Your task to perform on an android device: create a new album in the google photos Image 0: 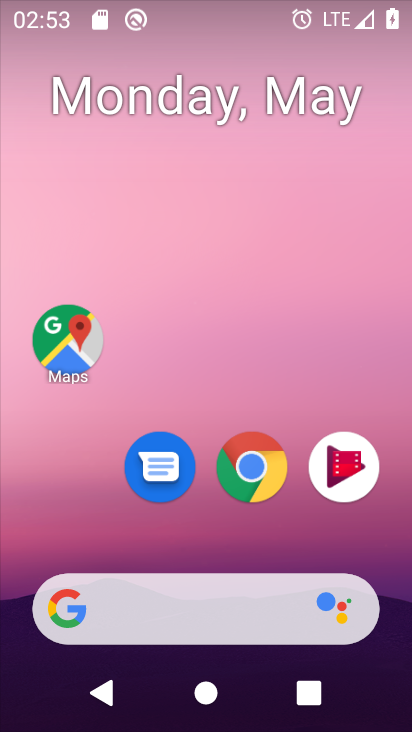
Step 0: drag from (203, 529) to (254, 179)
Your task to perform on an android device: create a new album in the google photos Image 1: 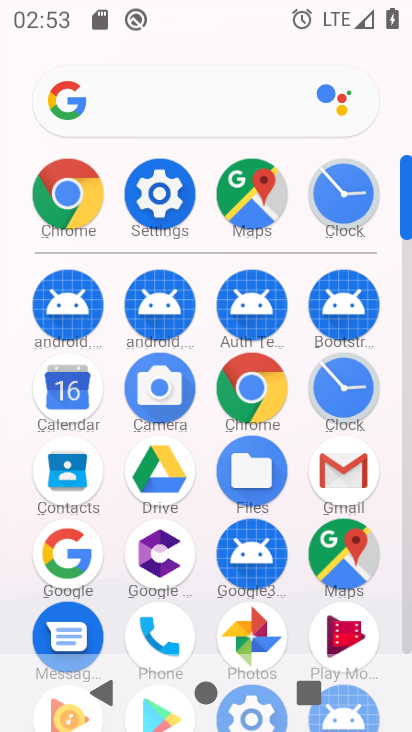
Step 1: click (257, 625)
Your task to perform on an android device: create a new album in the google photos Image 2: 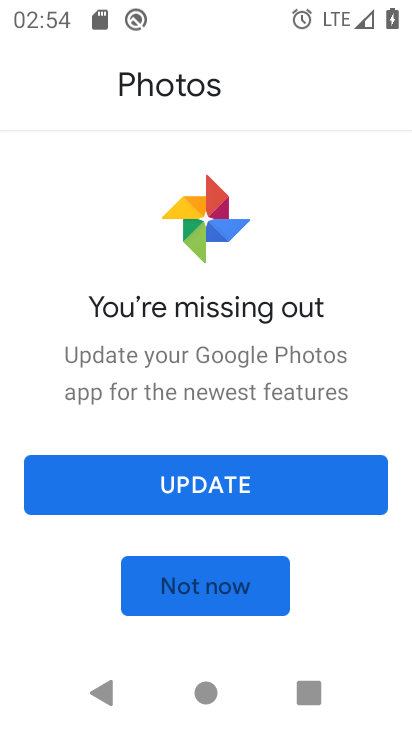
Step 2: click (237, 473)
Your task to perform on an android device: create a new album in the google photos Image 3: 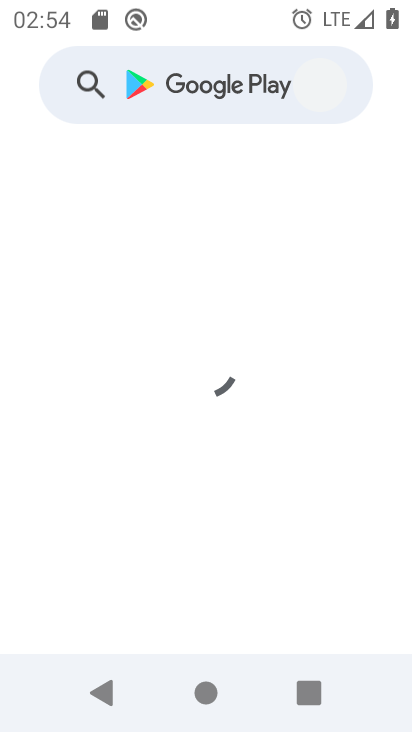
Step 3: press back button
Your task to perform on an android device: create a new album in the google photos Image 4: 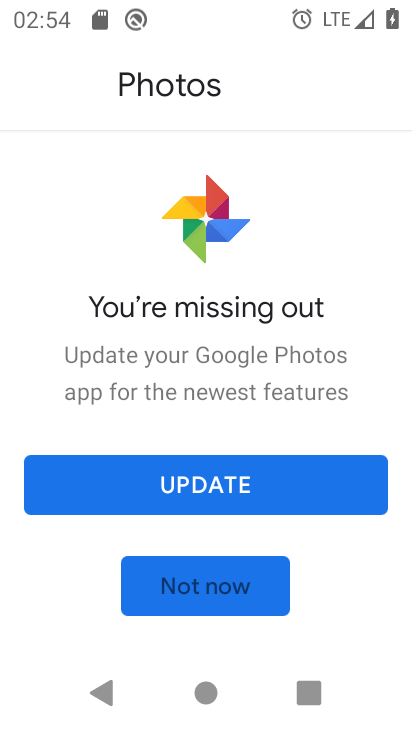
Step 4: click (222, 589)
Your task to perform on an android device: create a new album in the google photos Image 5: 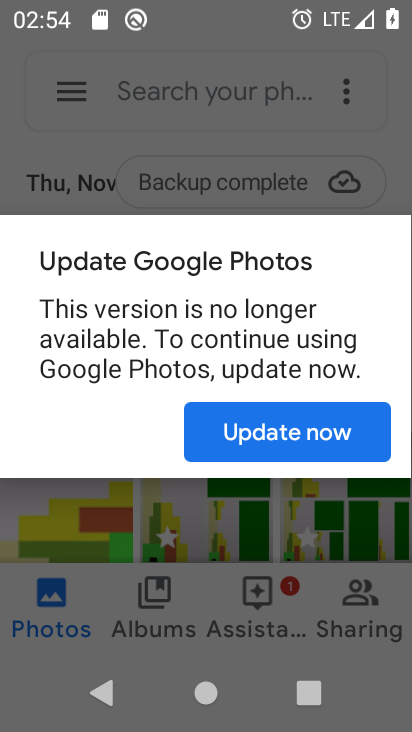
Step 5: press back button
Your task to perform on an android device: create a new album in the google photos Image 6: 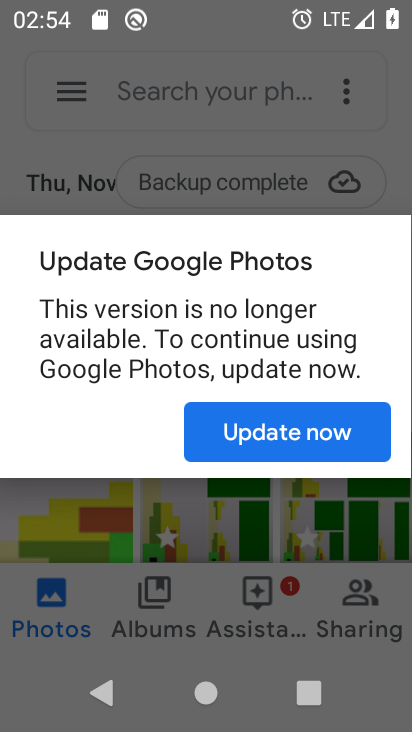
Step 6: click (245, 427)
Your task to perform on an android device: create a new album in the google photos Image 7: 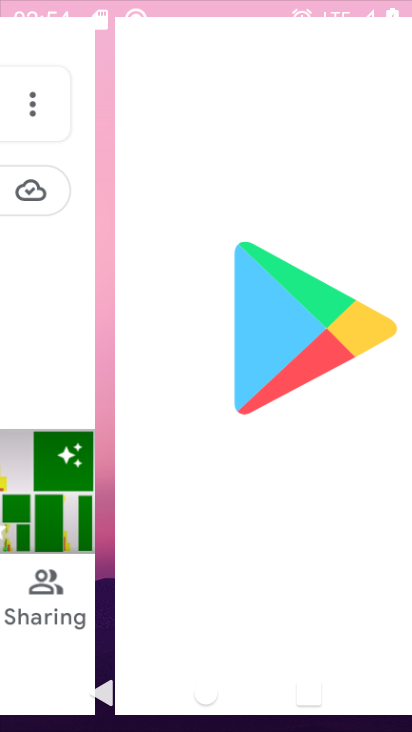
Step 7: click (246, 427)
Your task to perform on an android device: create a new album in the google photos Image 8: 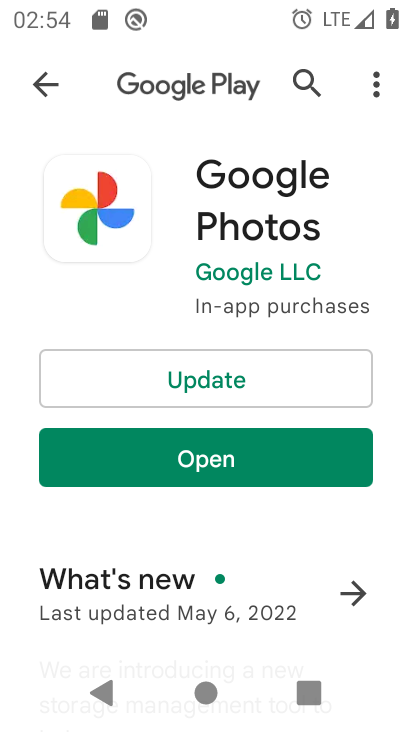
Step 8: press back button
Your task to perform on an android device: create a new album in the google photos Image 9: 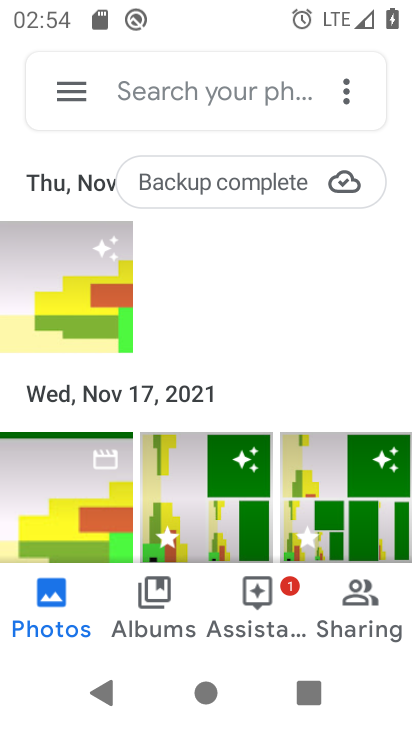
Step 9: click (54, 306)
Your task to perform on an android device: create a new album in the google photos Image 10: 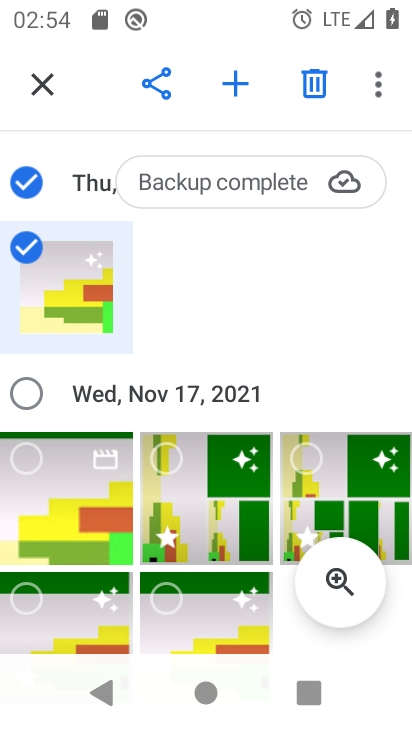
Step 10: click (240, 84)
Your task to perform on an android device: create a new album in the google photos Image 11: 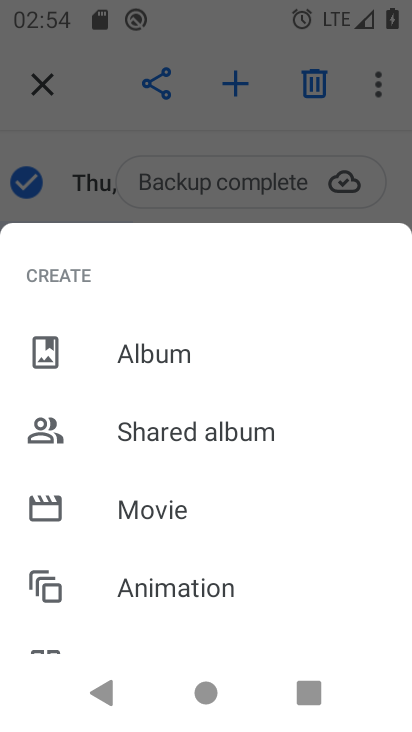
Step 11: click (168, 358)
Your task to perform on an android device: create a new album in the google photos Image 12: 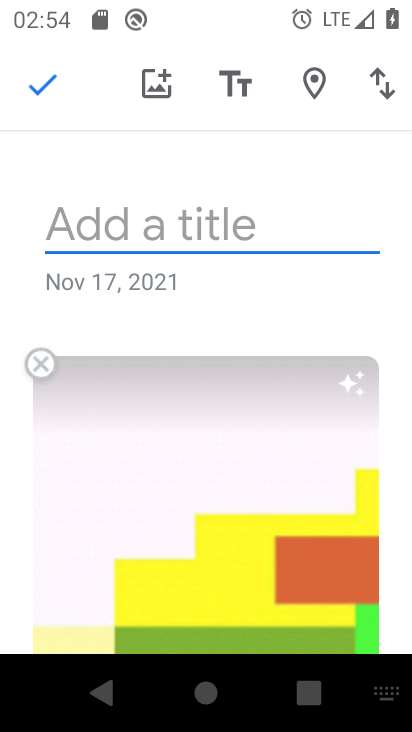
Step 12: click (155, 213)
Your task to perform on an android device: create a new album in the google photos Image 13: 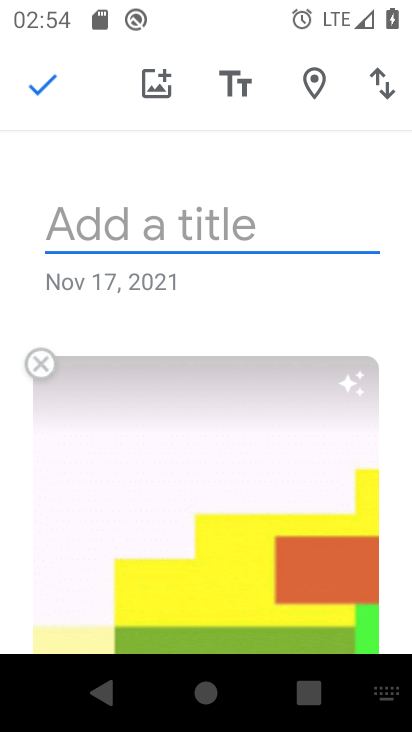
Step 13: type ".mnnnnn"
Your task to perform on an android device: create a new album in the google photos Image 14: 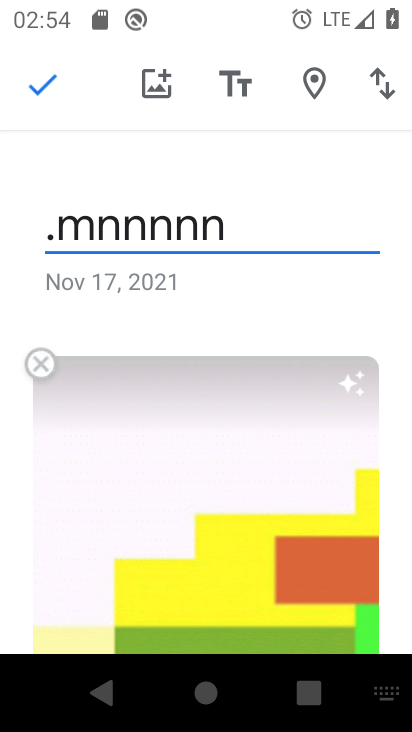
Step 14: click (61, 79)
Your task to perform on an android device: create a new album in the google photos Image 15: 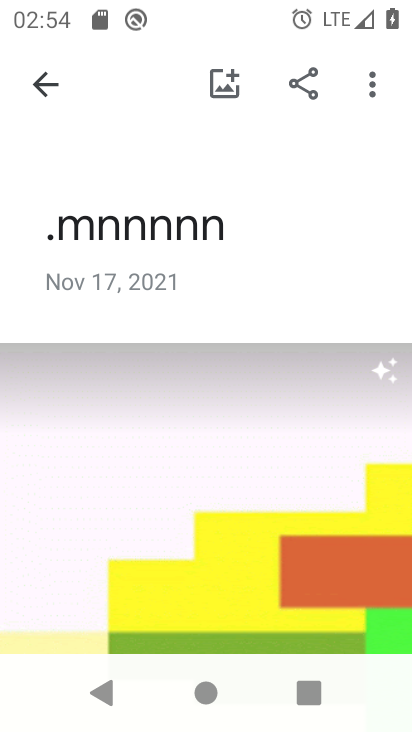
Step 15: task complete